Your task to perform on an android device: Open accessibility settings Image 0: 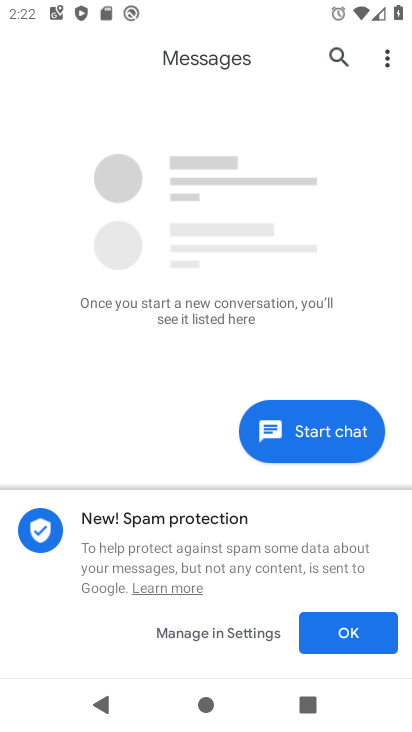
Step 0: press home button
Your task to perform on an android device: Open accessibility settings Image 1: 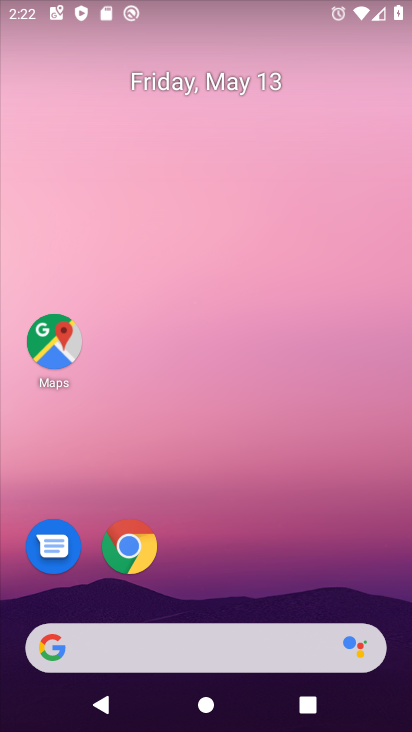
Step 1: drag from (251, 578) to (196, 52)
Your task to perform on an android device: Open accessibility settings Image 2: 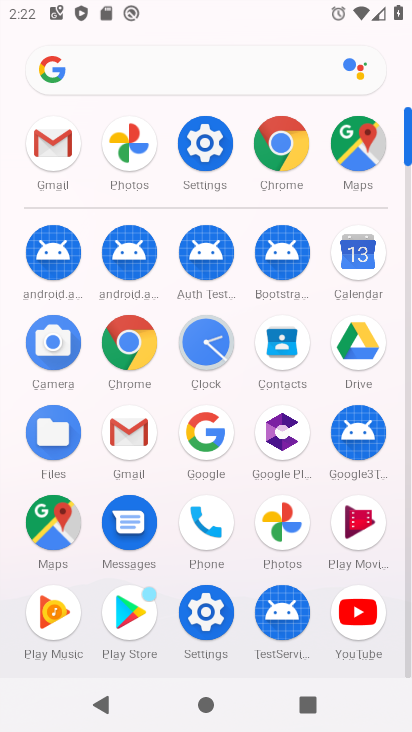
Step 2: click (193, 143)
Your task to perform on an android device: Open accessibility settings Image 3: 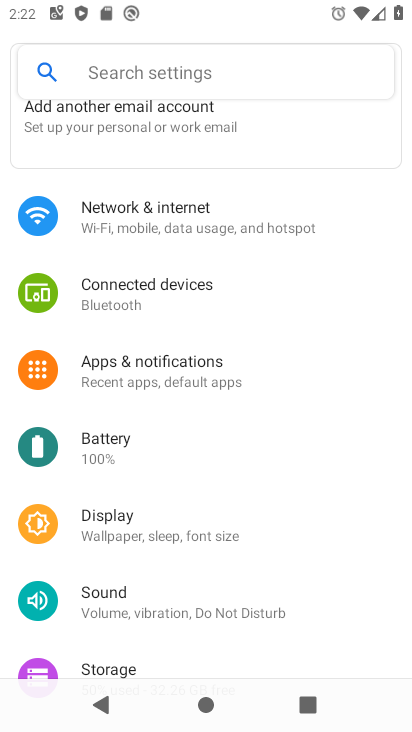
Step 3: drag from (160, 473) to (261, 114)
Your task to perform on an android device: Open accessibility settings Image 4: 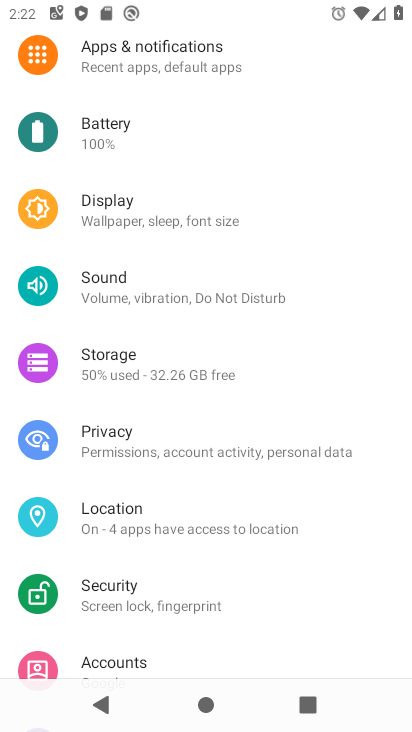
Step 4: drag from (195, 387) to (292, 88)
Your task to perform on an android device: Open accessibility settings Image 5: 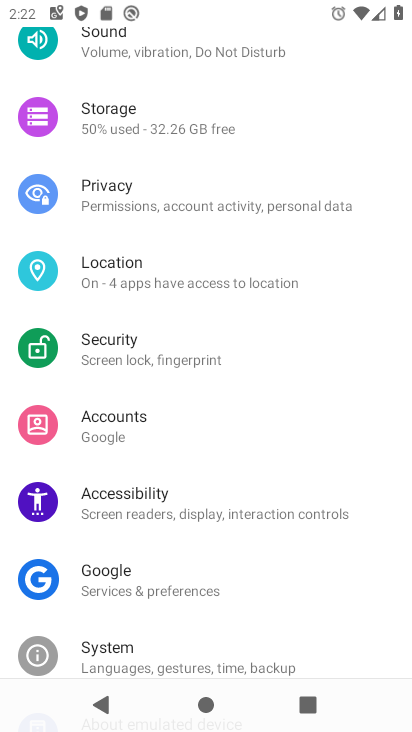
Step 5: drag from (193, 410) to (227, 291)
Your task to perform on an android device: Open accessibility settings Image 6: 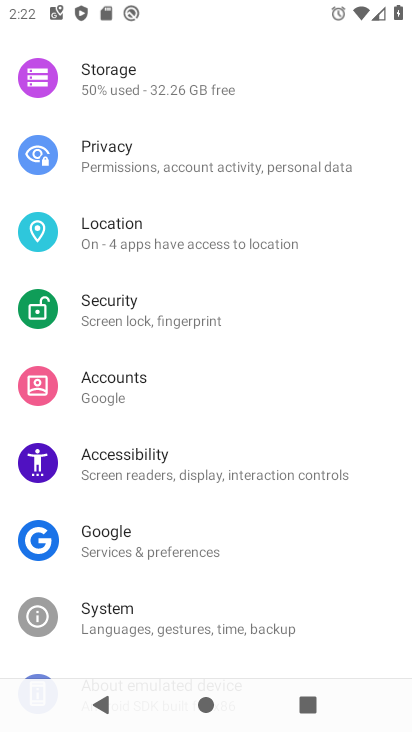
Step 6: click (139, 462)
Your task to perform on an android device: Open accessibility settings Image 7: 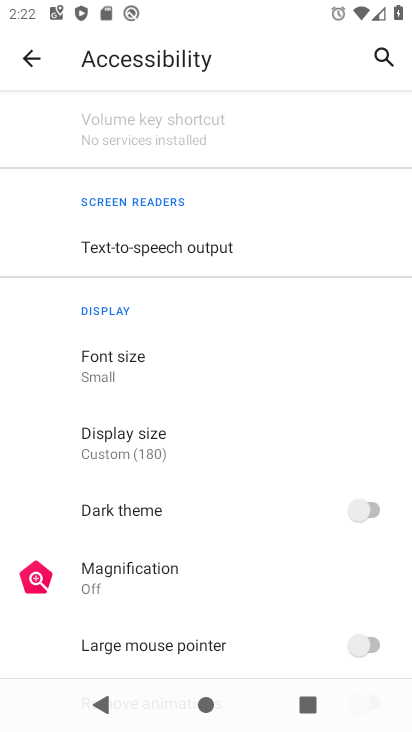
Step 7: task complete